Your task to perform on an android device: create a new album in the google photos Image 0: 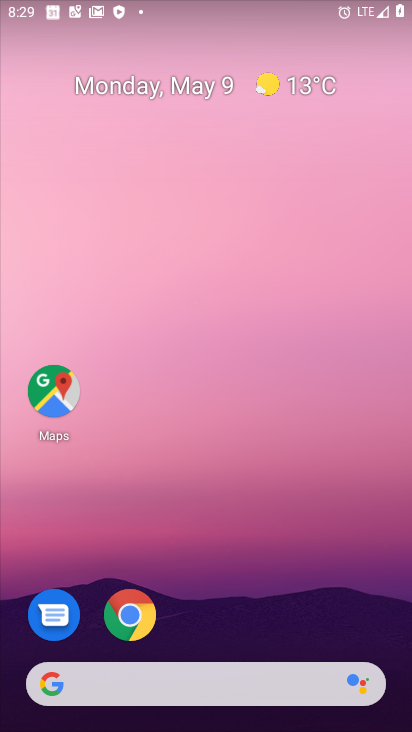
Step 0: click (205, 645)
Your task to perform on an android device: create a new album in the google photos Image 1: 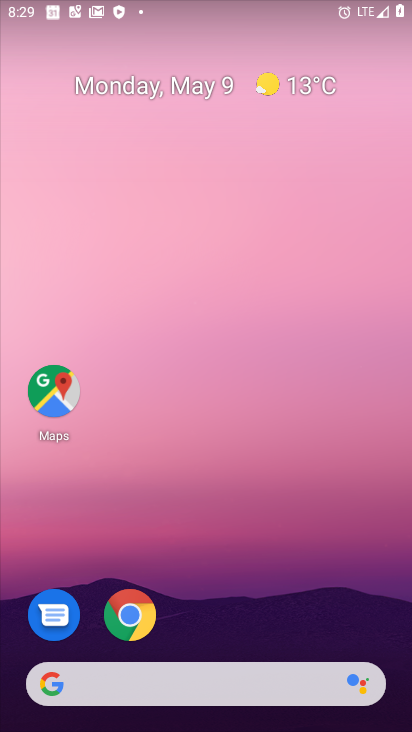
Step 1: drag from (205, 645) to (238, 317)
Your task to perform on an android device: create a new album in the google photos Image 2: 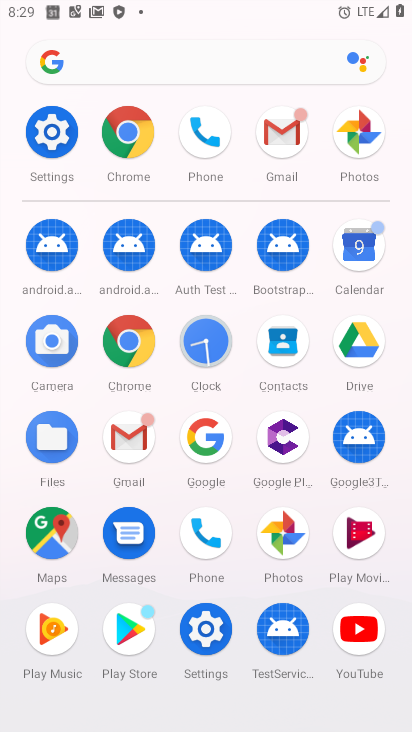
Step 2: click (271, 533)
Your task to perform on an android device: create a new album in the google photos Image 3: 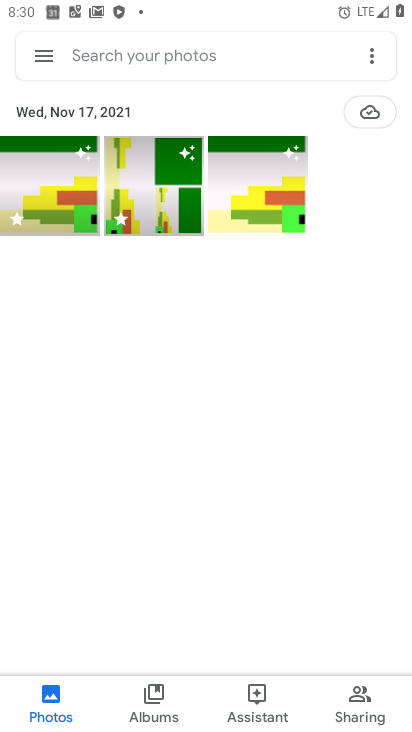
Step 3: click (71, 180)
Your task to perform on an android device: create a new album in the google photos Image 4: 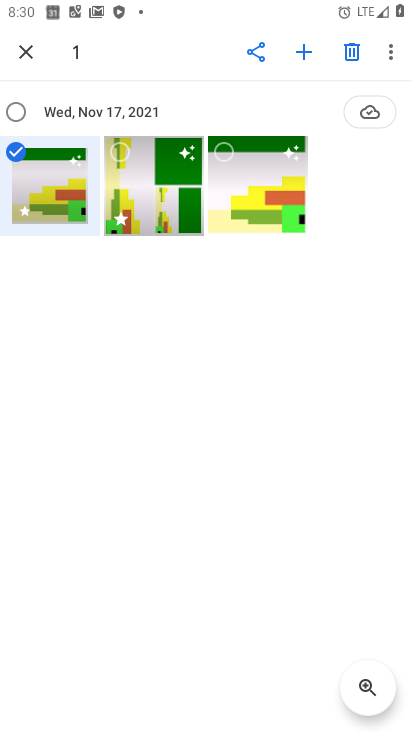
Step 4: click (124, 156)
Your task to perform on an android device: create a new album in the google photos Image 5: 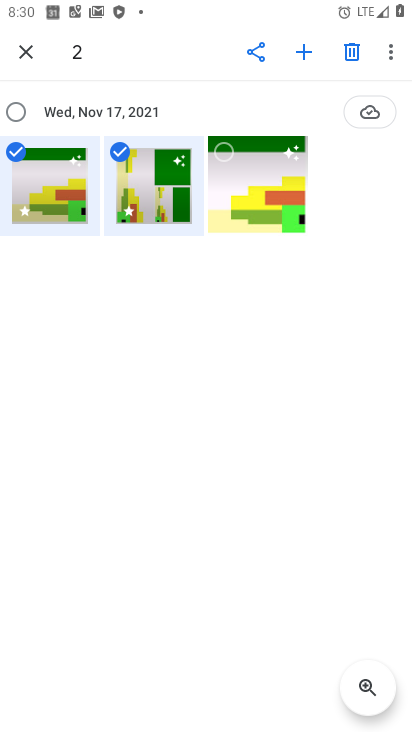
Step 5: click (307, 47)
Your task to perform on an android device: create a new album in the google photos Image 6: 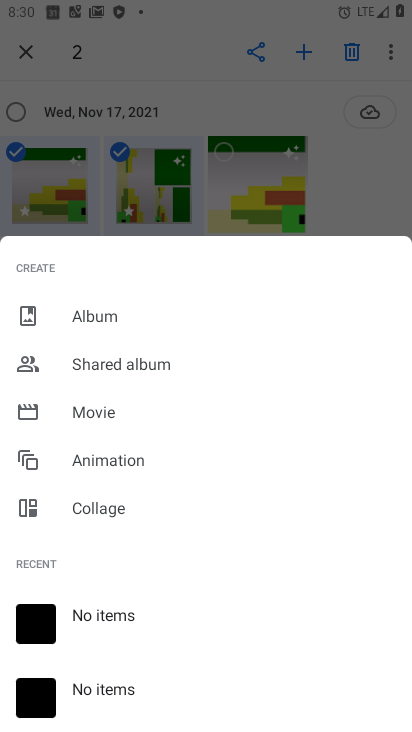
Step 6: click (127, 316)
Your task to perform on an android device: create a new album in the google photos Image 7: 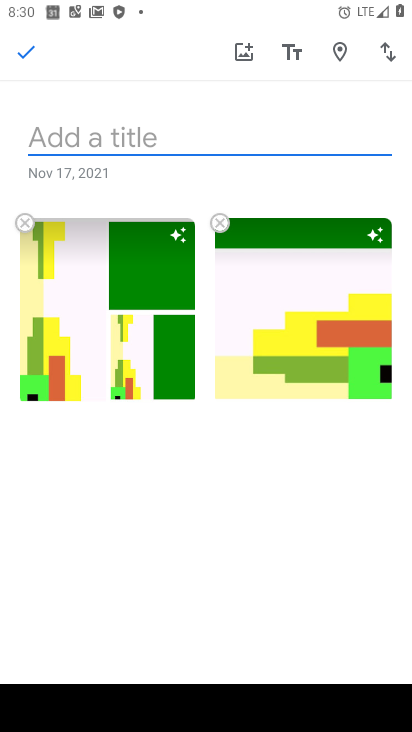
Step 7: type "ulfat"
Your task to perform on an android device: create a new album in the google photos Image 8: 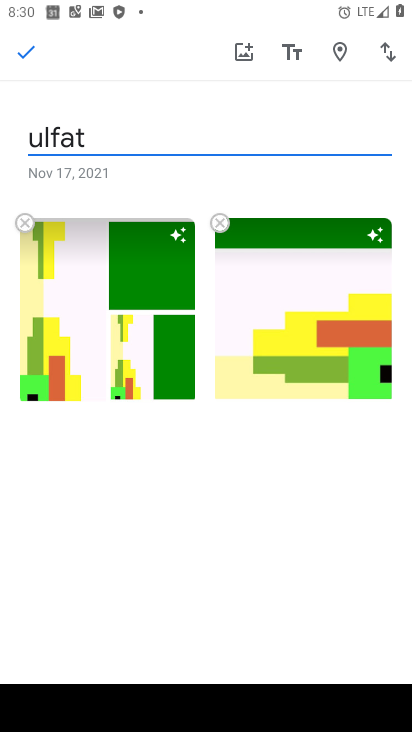
Step 8: click (22, 63)
Your task to perform on an android device: create a new album in the google photos Image 9: 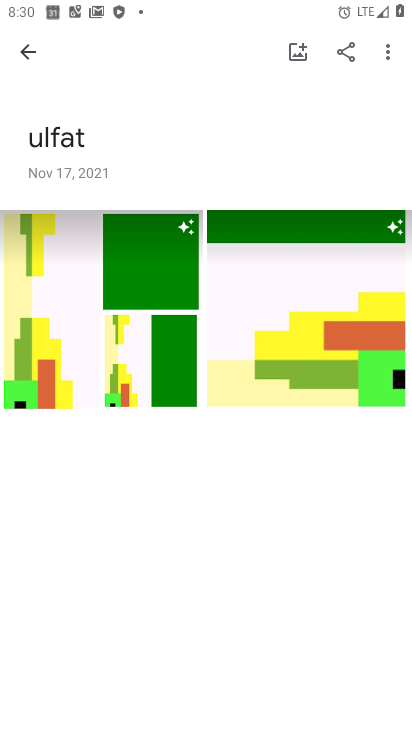
Step 9: task complete